Your task to perform on an android device: add a contact in the contacts app Image 0: 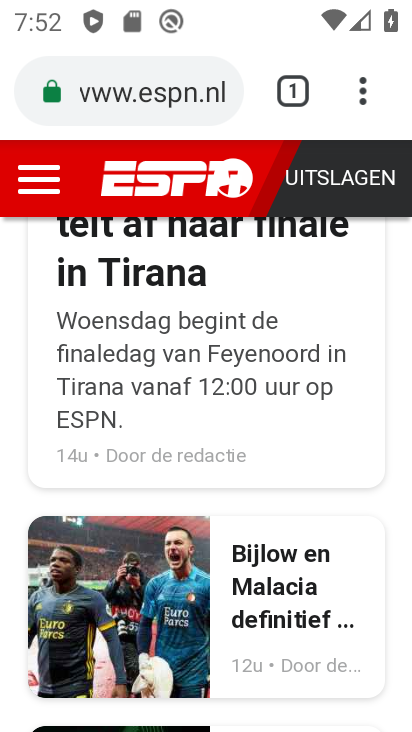
Step 0: press home button
Your task to perform on an android device: add a contact in the contacts app Image 1: 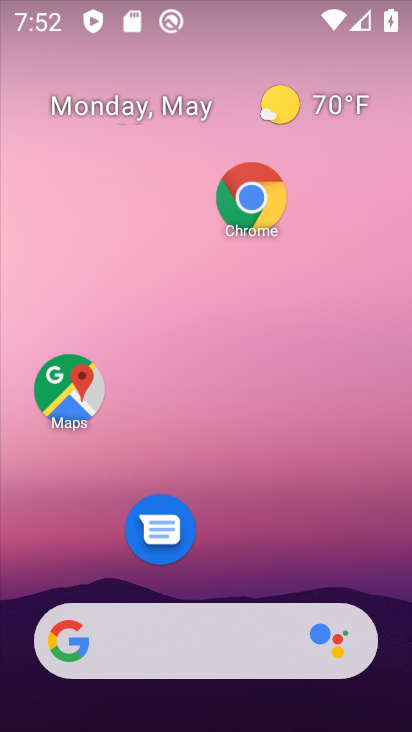
Step 1: drag from (236, 578) to (240, 7)
Your task to perform on an android device: add a contact in the contacts app Image 2: 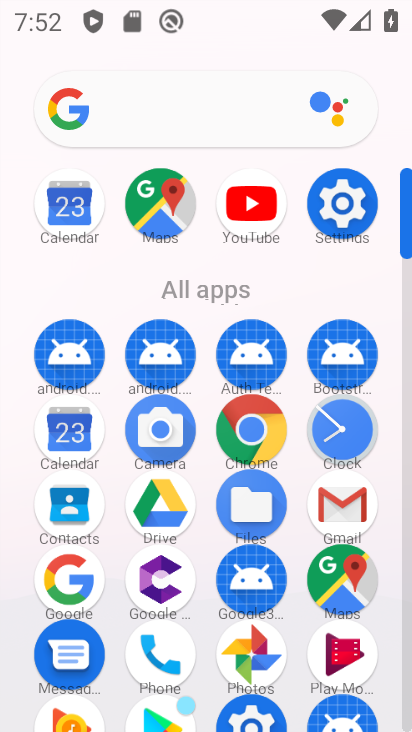
Step 2: click (77, 497)
Your task to perform on an android device: add a contact in the contacts app Image 3: 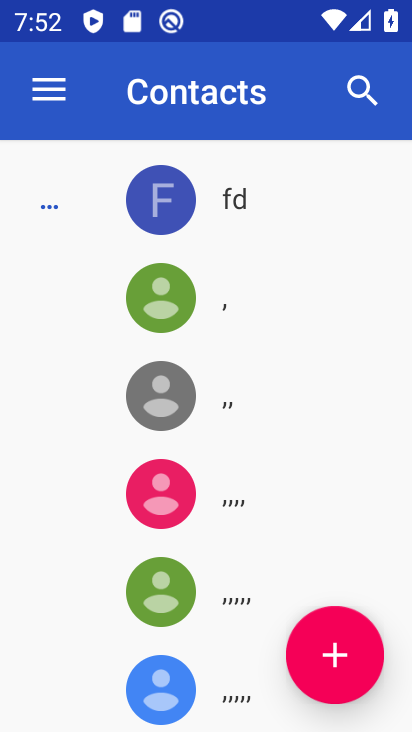
Step 3: click (330, 648)
Your task to perform on an android device: add a contact in the contacts app Image 4: 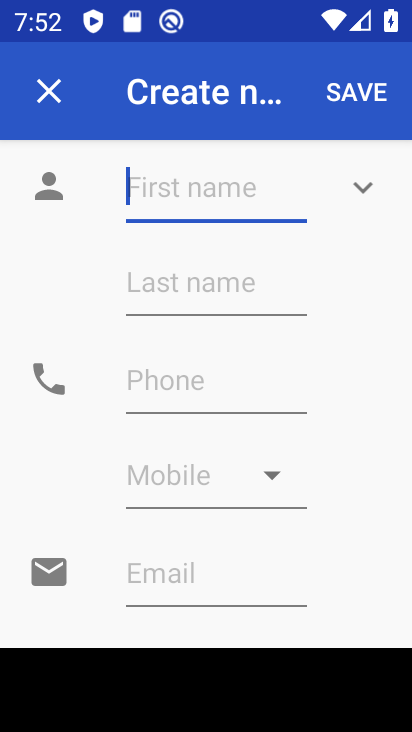
Step 4: type "hngnhnj"
Your task to perform on an android device: add a contact in the contacts app Image 5: 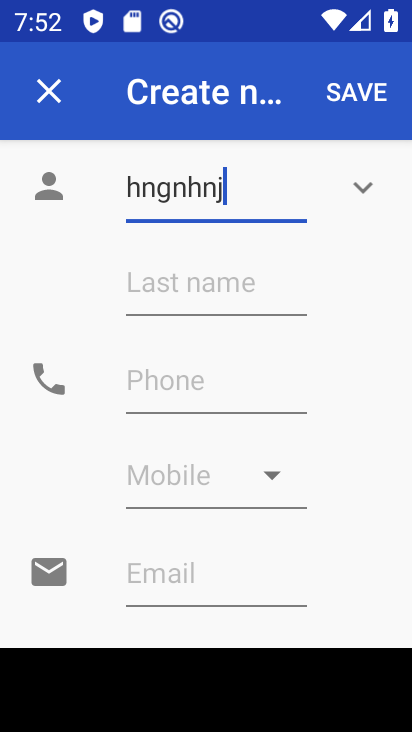
Step 5: type ""
Your task to perform on an android device: add a contact in the contacts app Image 6: 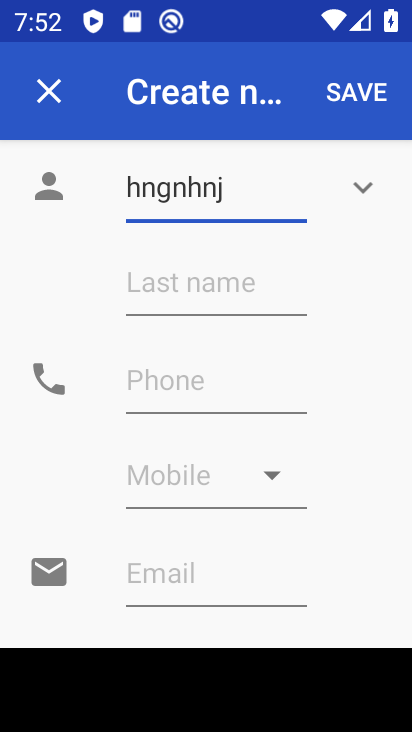
Step 6: click (361, 87)
Your task to perform on an android device: add a contact in the contacts app Image 7: 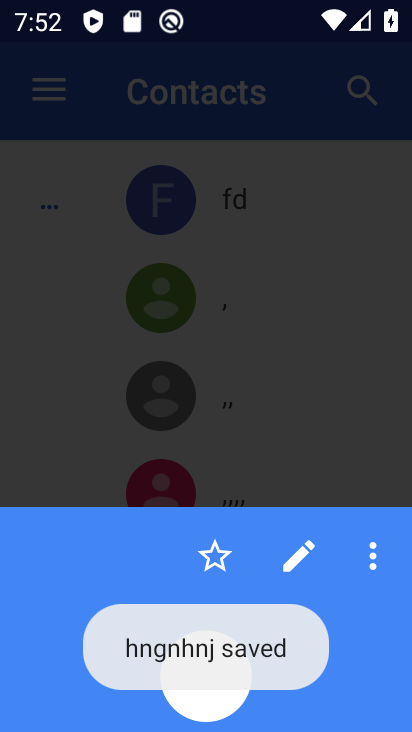
Step 7: task complete